Your task to perform on an android device: Search for a sofa on article.com Image 0: 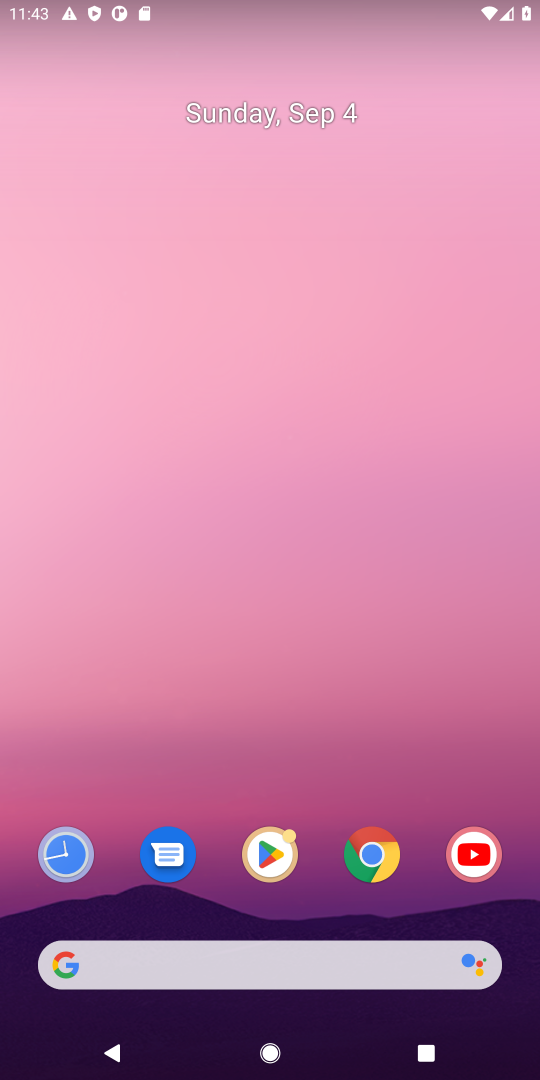
Step 0: press home button
Your task to perform on an android device: Search for a sofa on article.com Image 1: 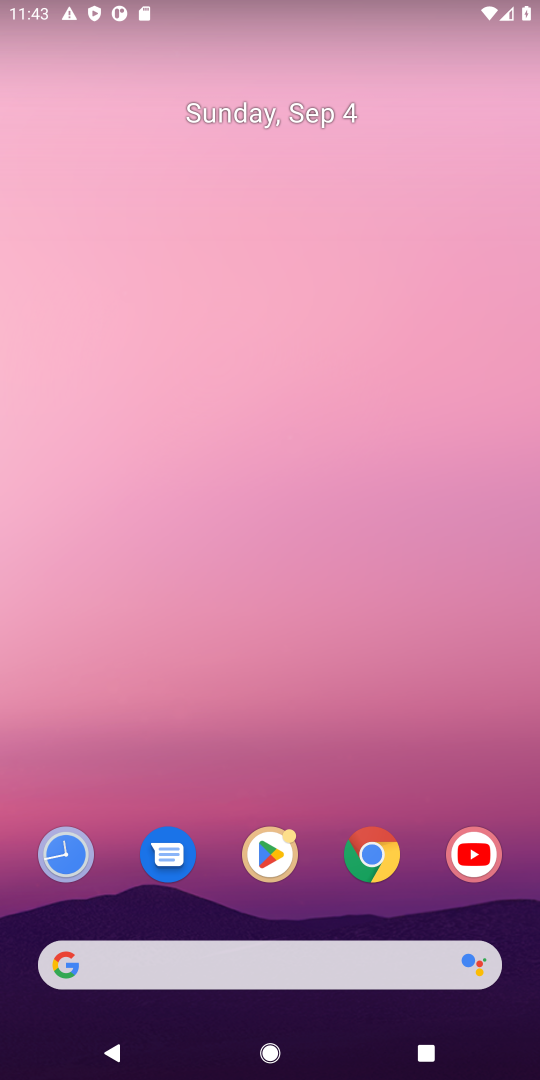
Step 1: click (351, 968)
Your task to perform on an android device: Search for a sofa on article.com Image 2: 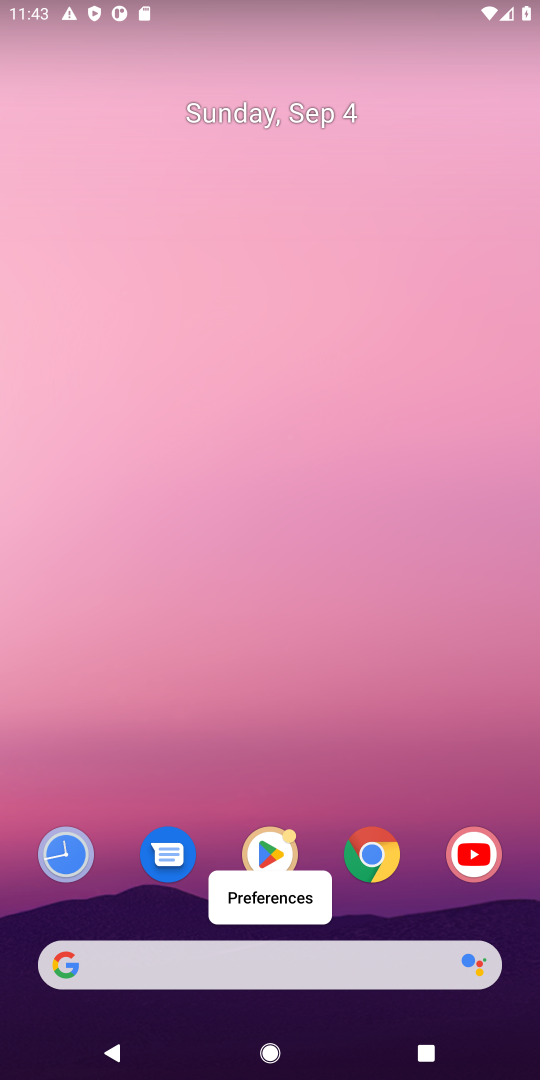
Step 2: click (189, 961)
Your task to perform on an android device: Search for a sofa on article.com Image 3: 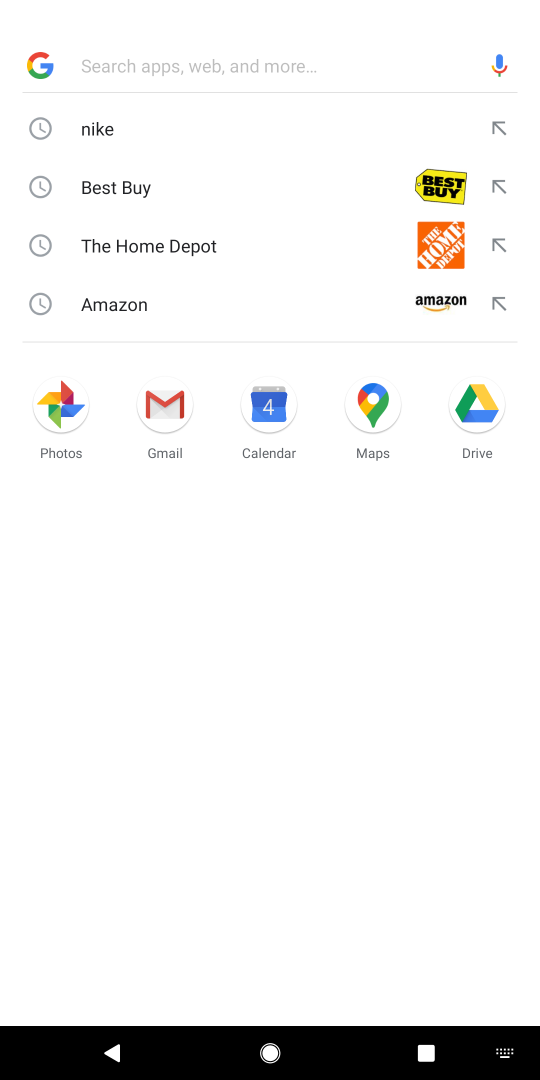
Step 3: press enter
Your task to perform on an android device: Search for a sofa on article.com Image 4: 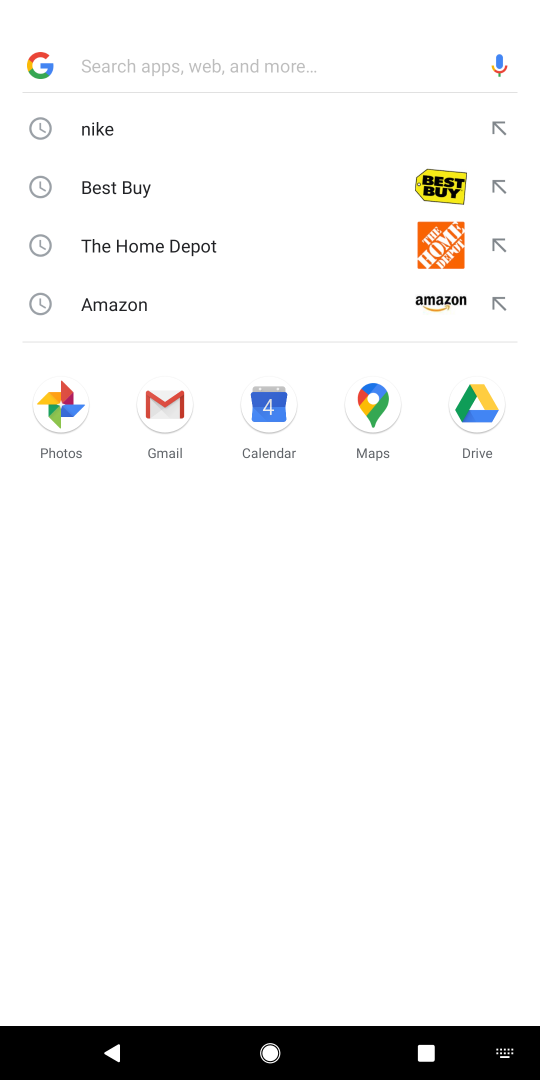
Step 4: type "article.com"
Your task to perform on an android device: Search for a sofa on article.com Image 5: 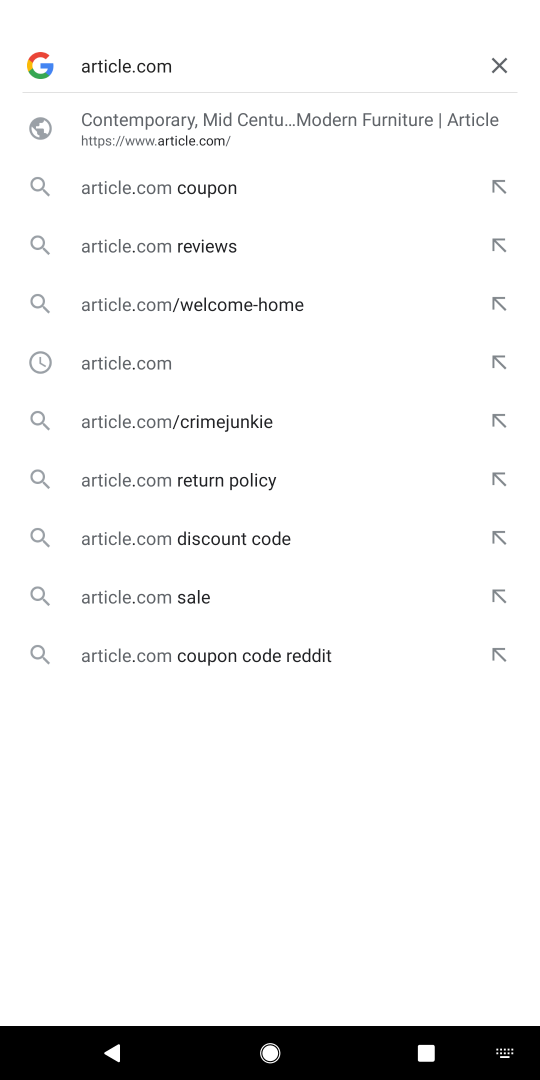
Step 5: click (190, 123)
Your task to perform on an android device: Search for a sofa on article.com Image 6: 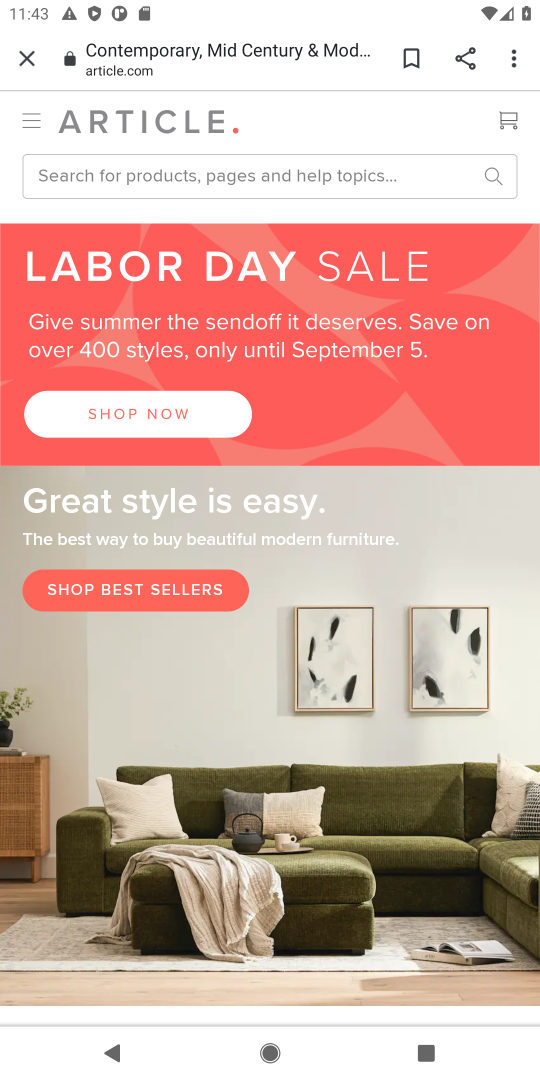
Step 6: click (202, 173)
Your task to perform on an android device: Search for a sofa on article.com Image 7: 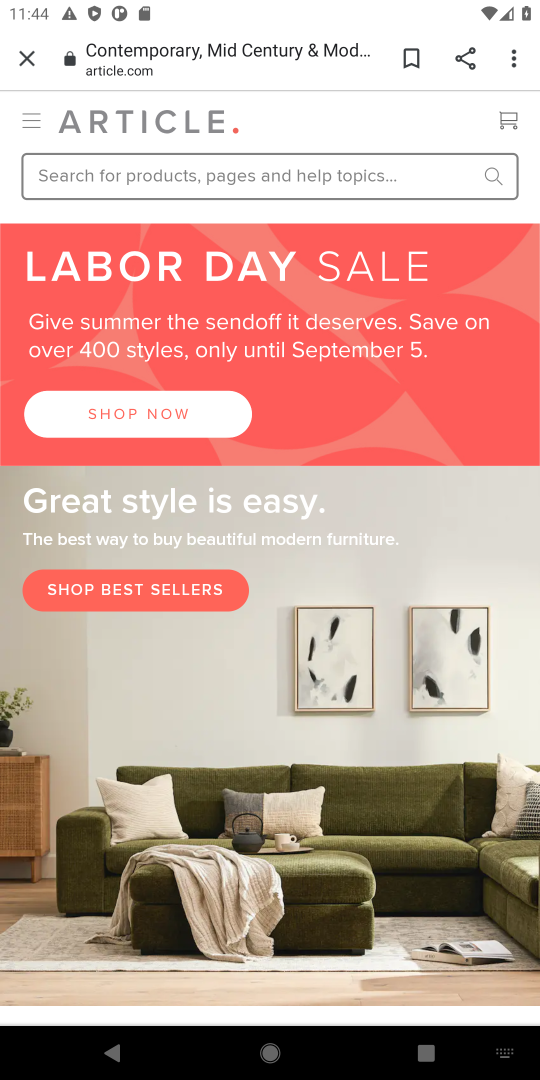
Step 7: type "sofa"
Your task to perform on an android device: Search for a sofa on article.com Image 8: 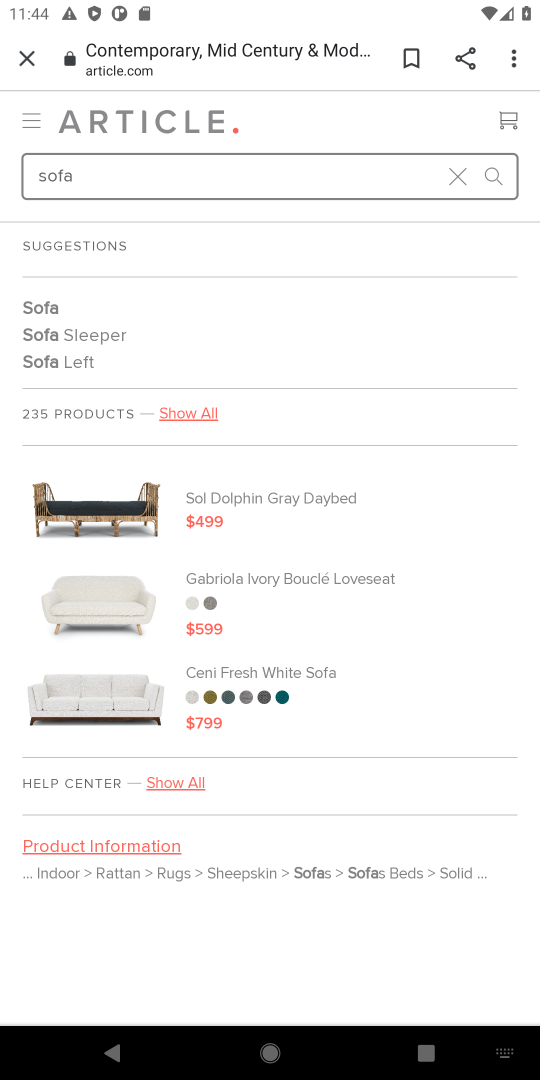
Step 8: task complete